Your task to perform on an android device: allow notifications from all sites in the chrome app Image 0: 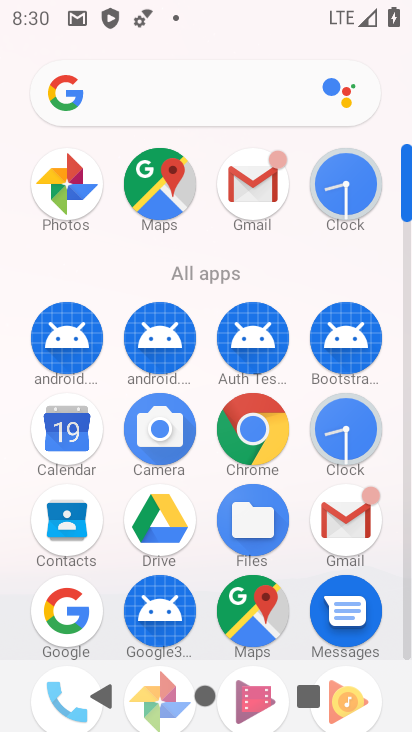
Step 0: click (252, 424)
Your task to perform on an android device: allow notifications from all sites in the chrome app Image 1: 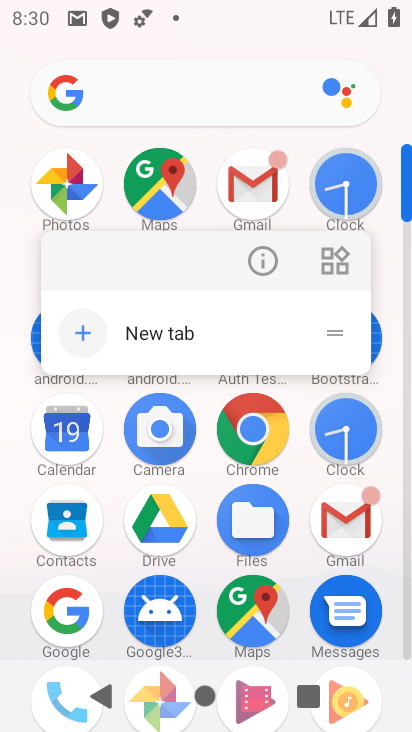
Step 1: click (270, 260)
Your task to perform on an android device: allow notifications from all sites in the chrome app Image 2: 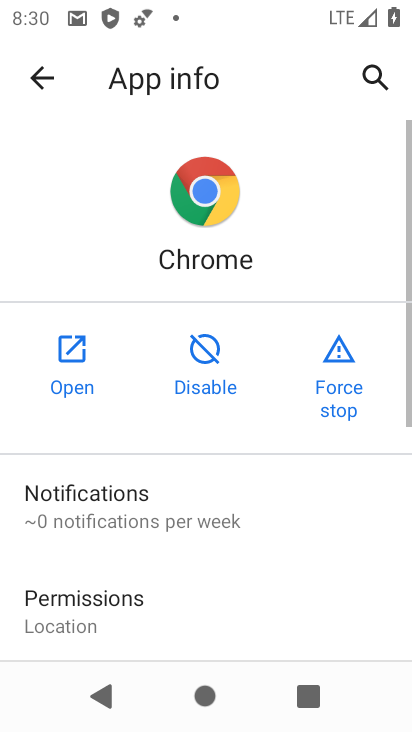
Step 2: click (99, 508)
Your task to perform on an android device: allow notifications from all sites in the chrome app Image 3: 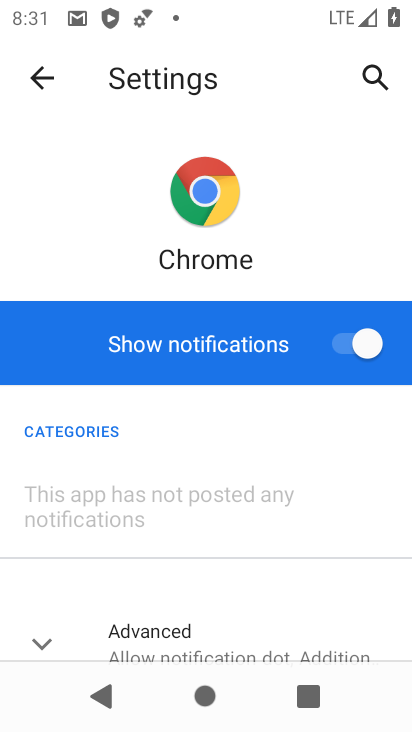
Step 3: task complete